Your task to perform on an android device: turn on the 24-hour format for clock Image 0: 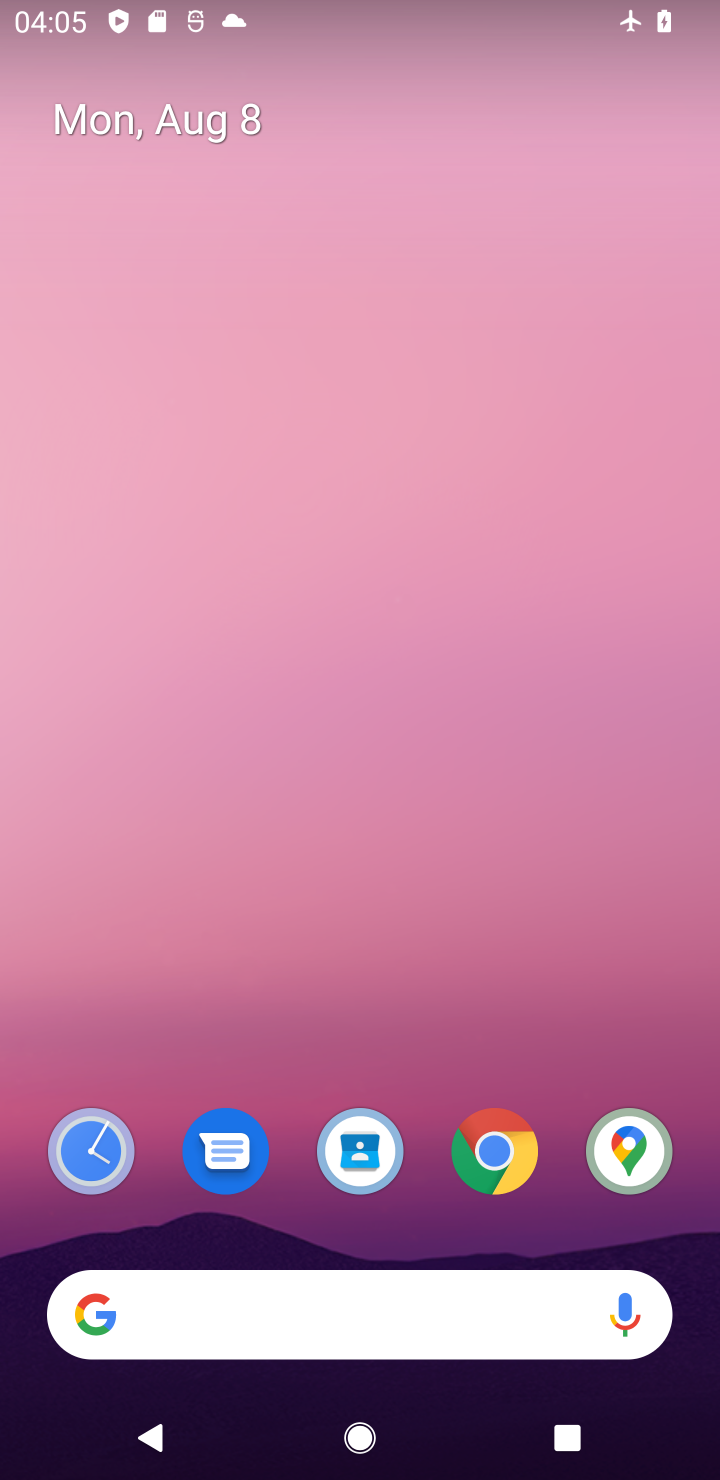
Step 0: drag from (330, 916) to (332, 320)
Your task to perform on an android device: turn on the 24-hour format for clock Image 1: 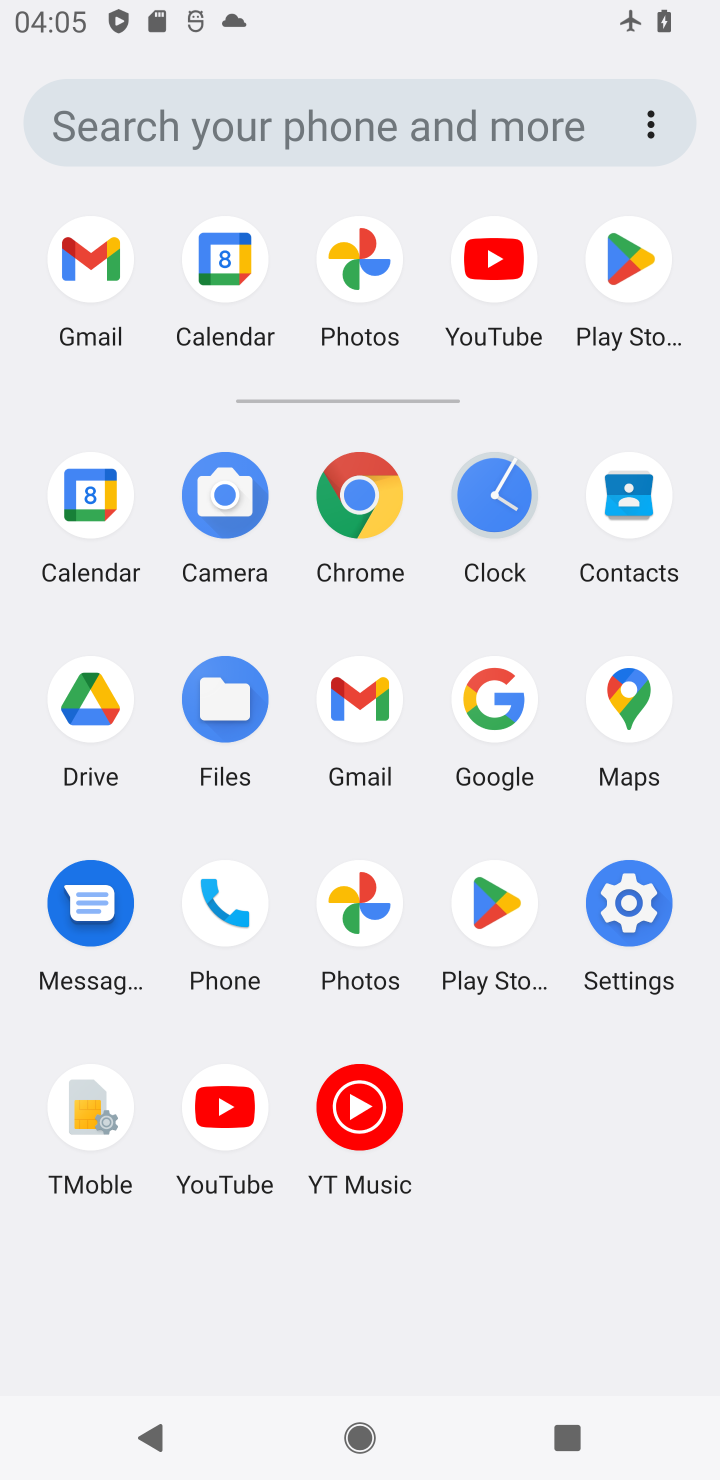
Step 1: click (488, 525)
Your task to perform on an android device: turn on the 24-hour format for clock Image 2: 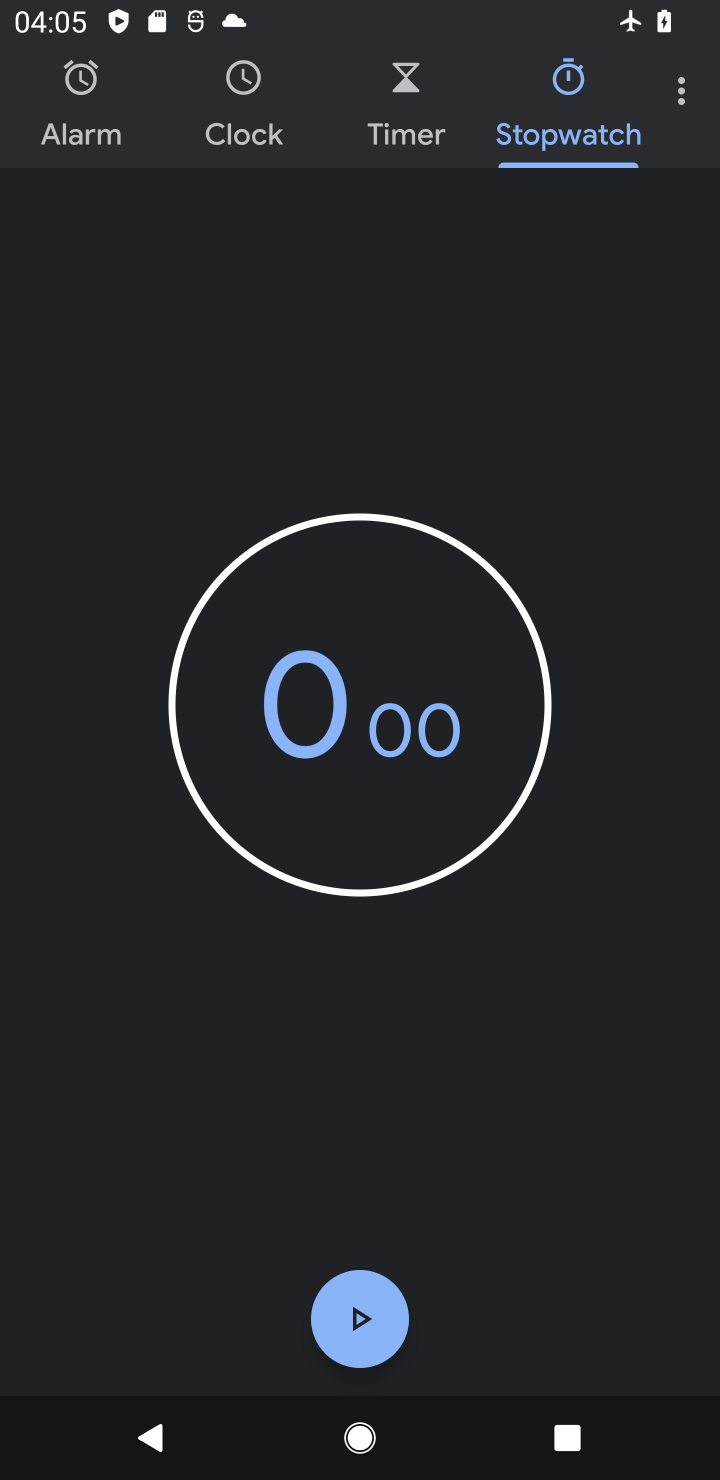
Step 2: click (679, 114)
Your task to perform on an android device: turn on the 24-hour format for clock Image 3: 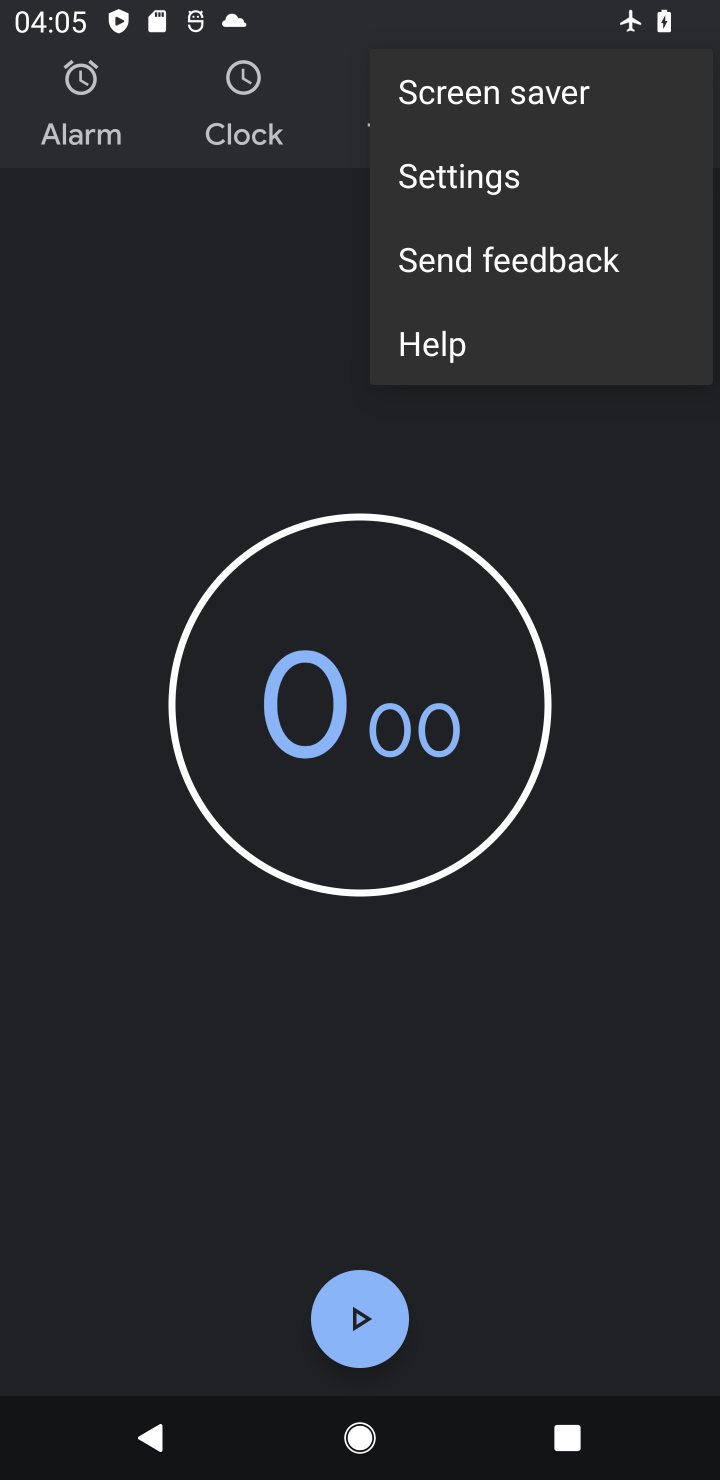
Step 3: click (587, 182)
Your task to perform on an android device: turn on the 24-hour format for clock Image 4: 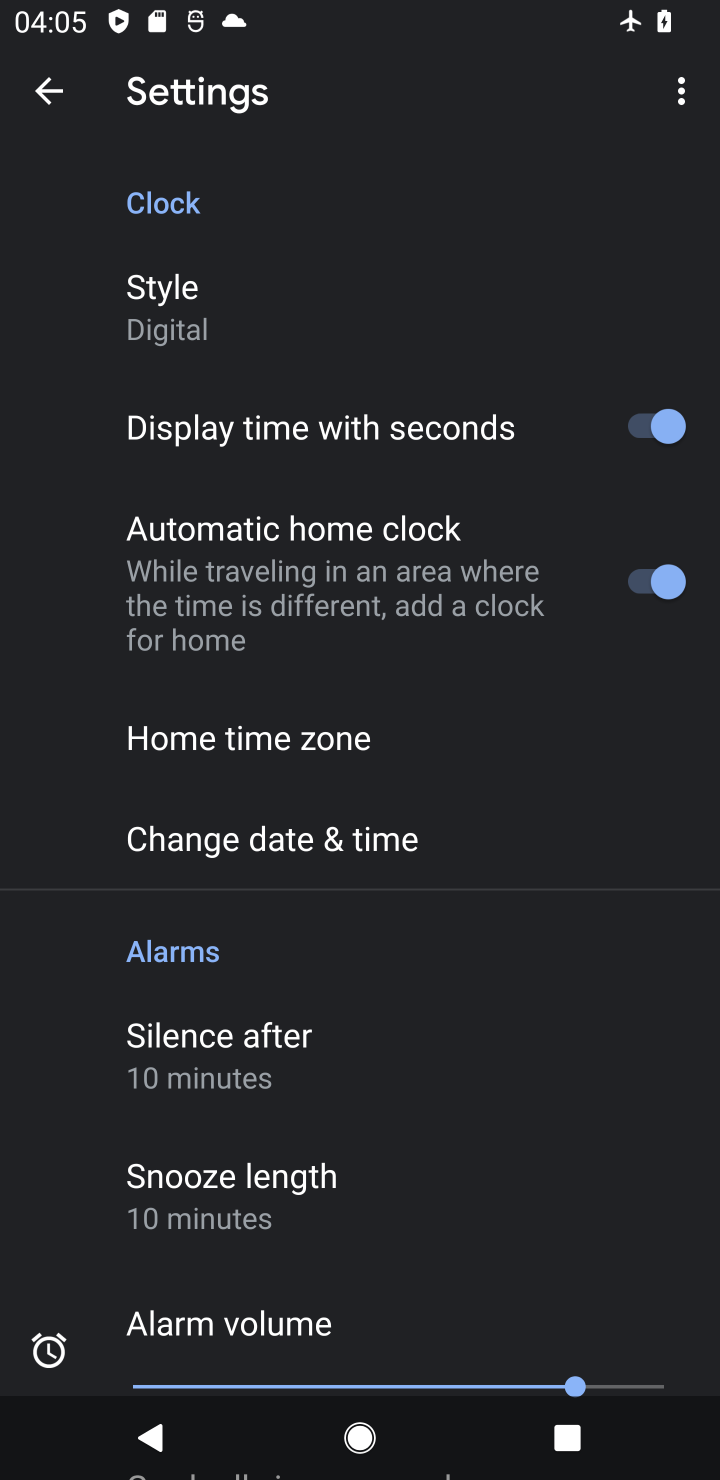
Step 4: click (386, 855)
Your task to perform on an android device: turn on the 24-hour format for clock Image 5: 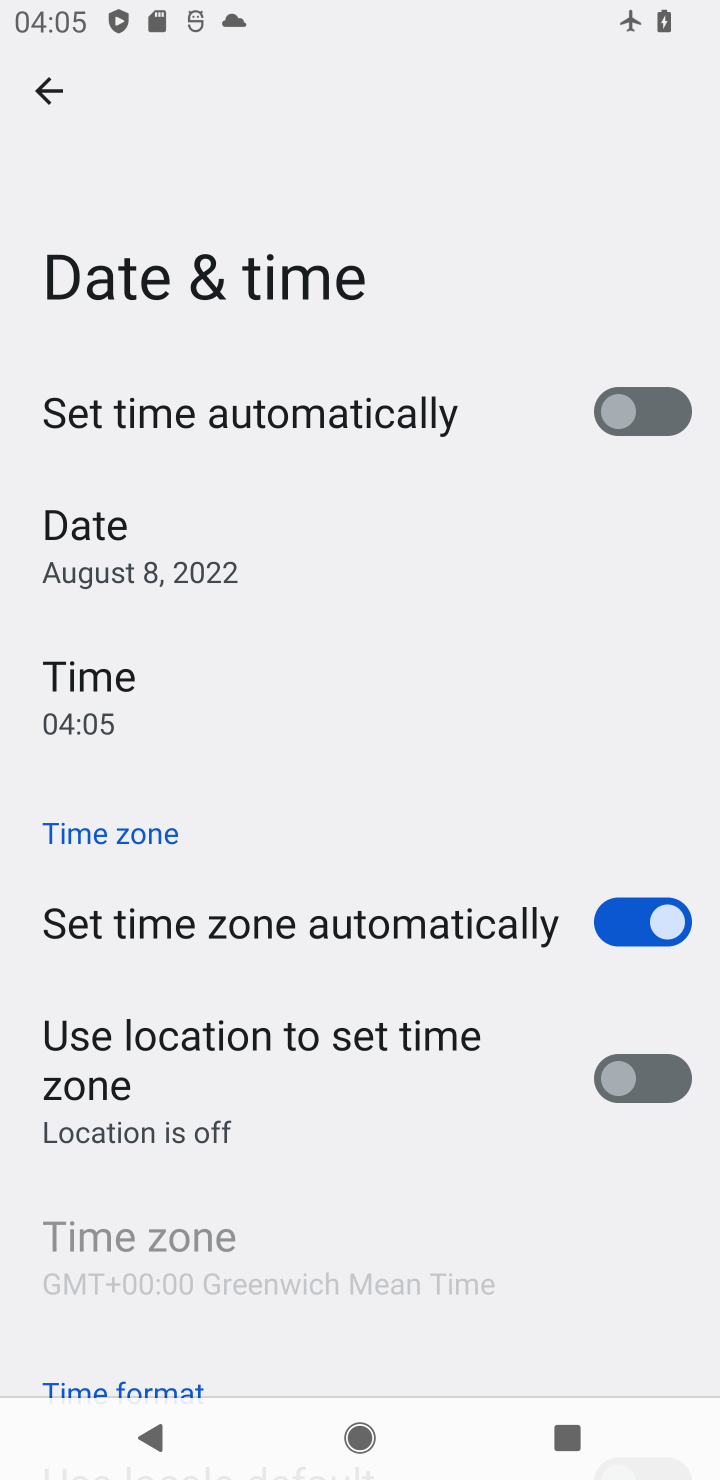
Step 5: task complete